Your task to perform on an android device: Open CNN.com Image 0: 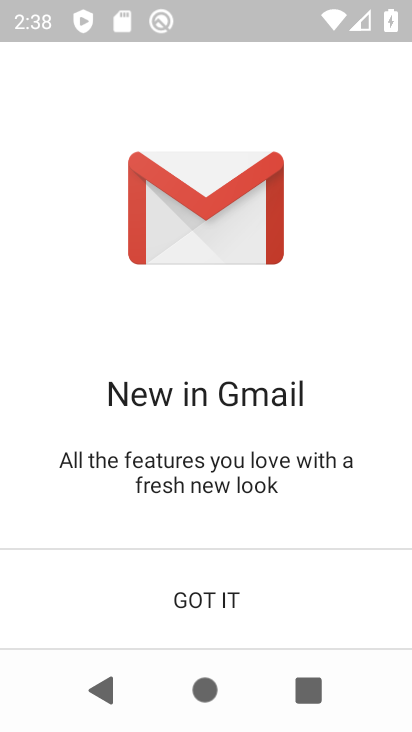
Step 0: press home button
Your task to perform on an android device: Open CNN.com Image 1: 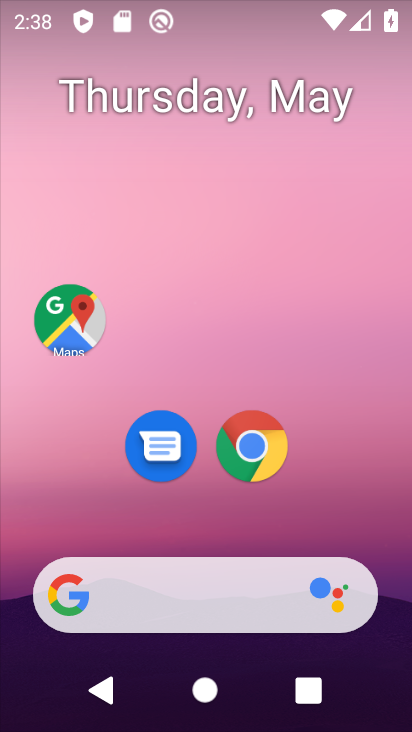
Step 1: click (252, 446)
Your task to perform on an android device: Open CNN.com Image 2: 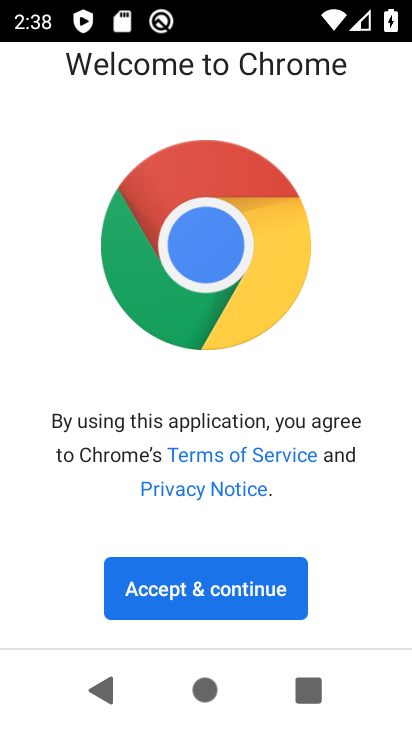
Step 2: click (200, 596)
Your task to perform on an android device: Open CNN.com Image 3: 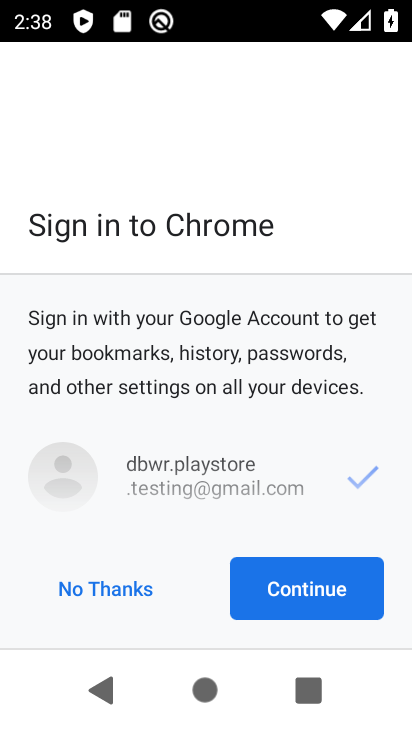
Step 3: click (118, 597)
Your task to perform on an android device: Open CNN.com Image 4: 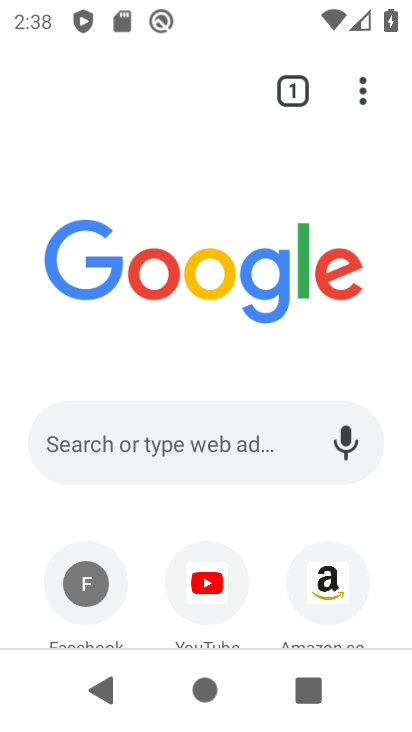
Step 4: drag from (376, 548) to (355, 341)
Your task to perform on an android device: Open CNN.com Image 5: 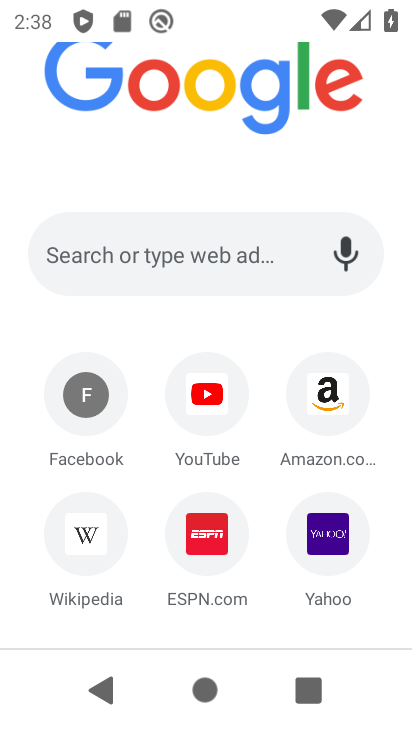
Step 5: click (92, 264)
Your task to perform on an android device: Open CNN.com Image 6: 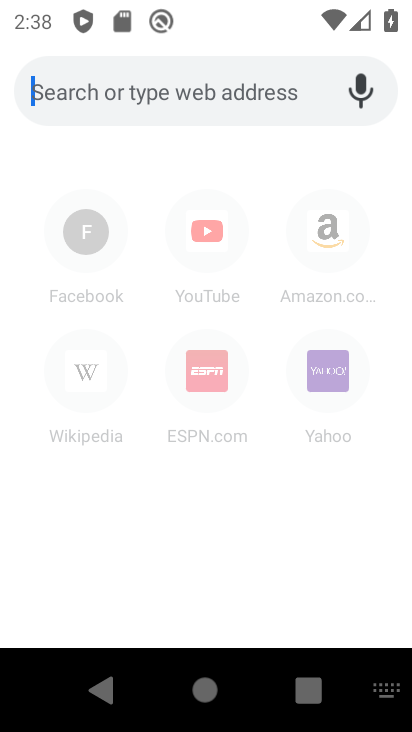
Step 6: type "cnn.com"
Your task to perform on an android device: Open CNN.com Image 7: 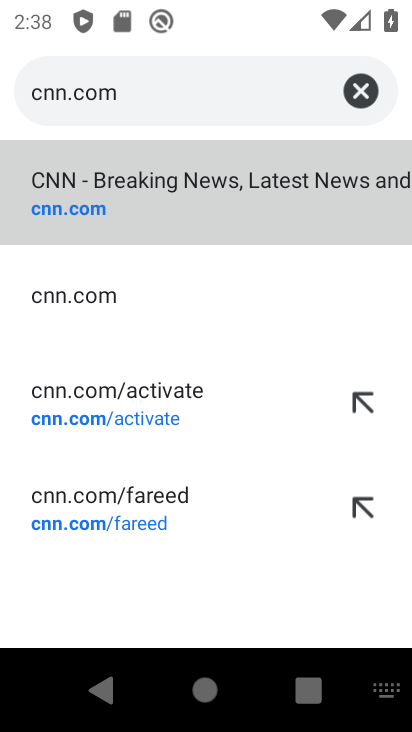
Step 7: click (57, 213)
Your task to perform on an android device: Open CNN.com Image 8: 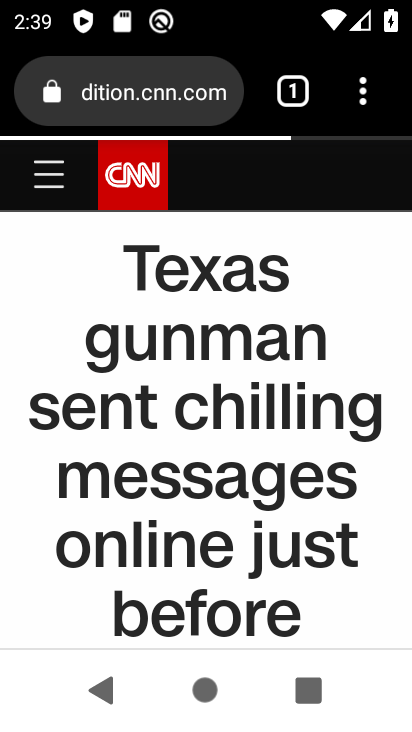
Step 8: task complete